Your task to perform on an android device: check the backup settings in the google photos Image 0: 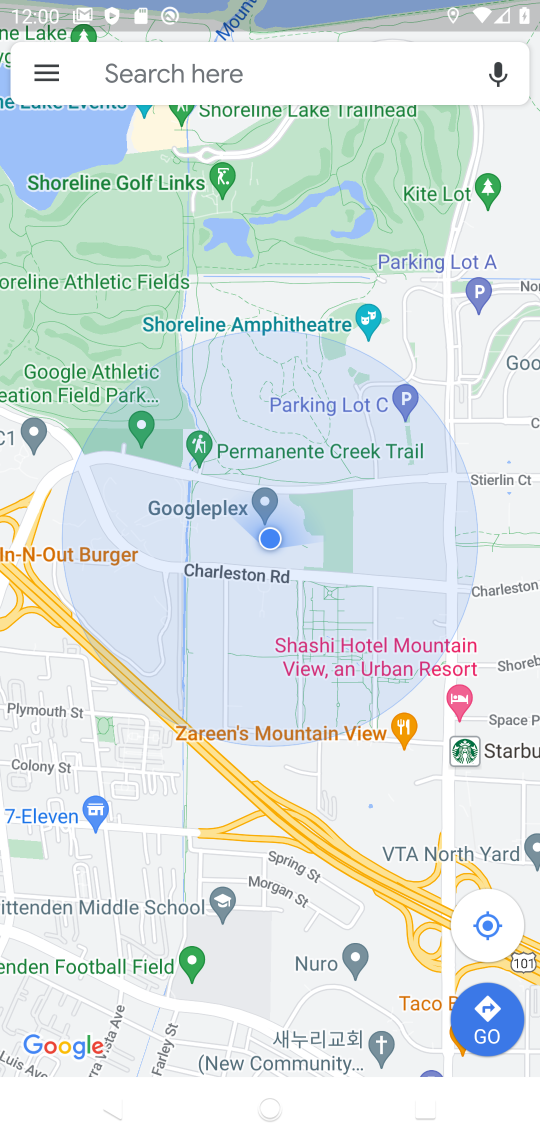
Step 0: press home button
Your task to perform on an android device: check the backup settings in the google photos Image 1: 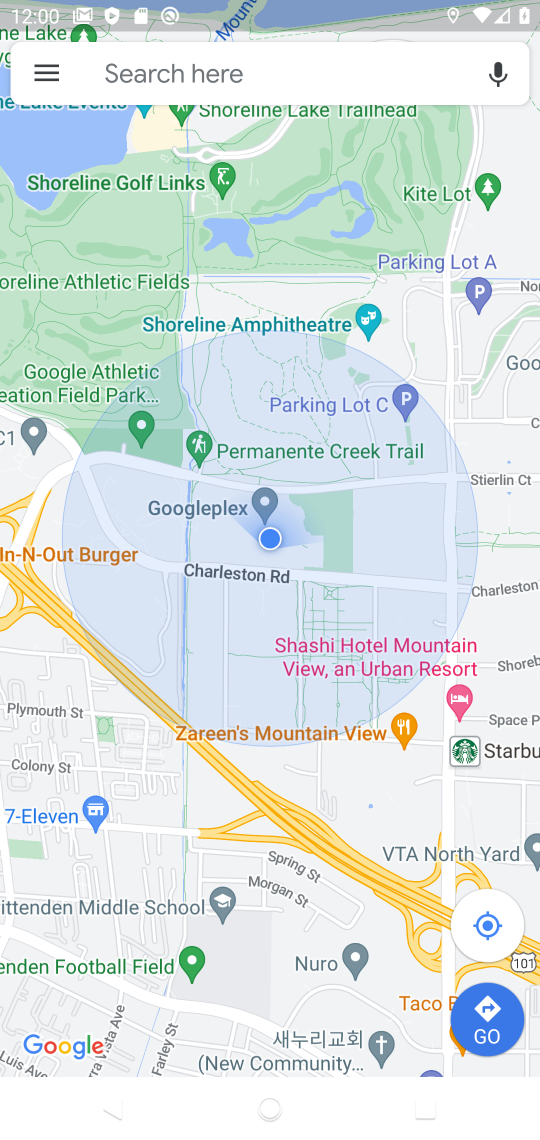
Step 1: press home button
Your task to perform on an android device: check the backup settings in the google photos Image 2: 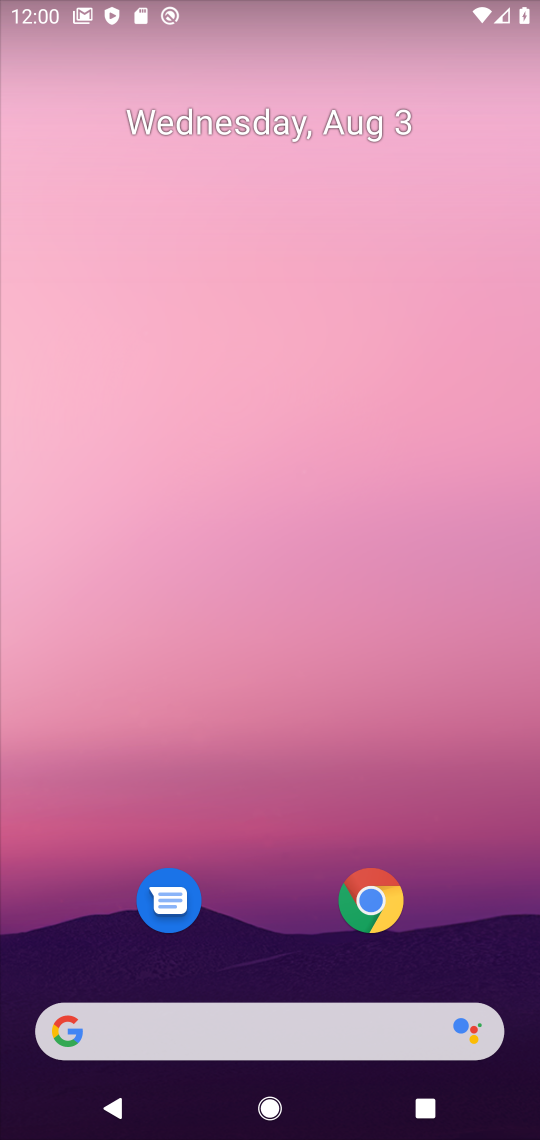
Step 2: drag from (263, 945) to (294, 135)
Your task to perform on an android device: check the backup settings in the google photos Image 3: 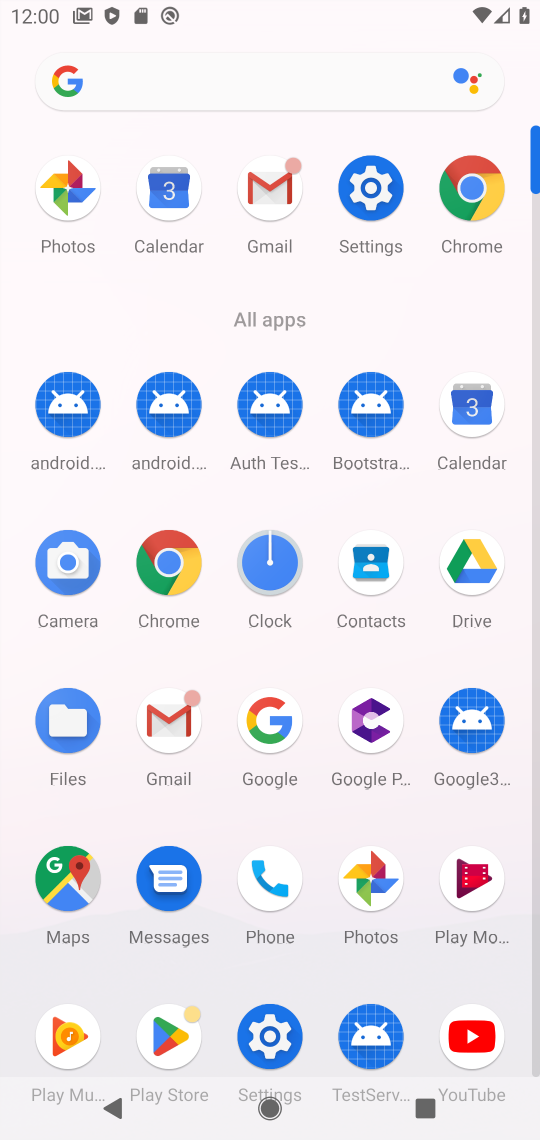
Step 3: click (367, 871)
Your task to perform on an android device: check the backup settings in the google photos Image 4: 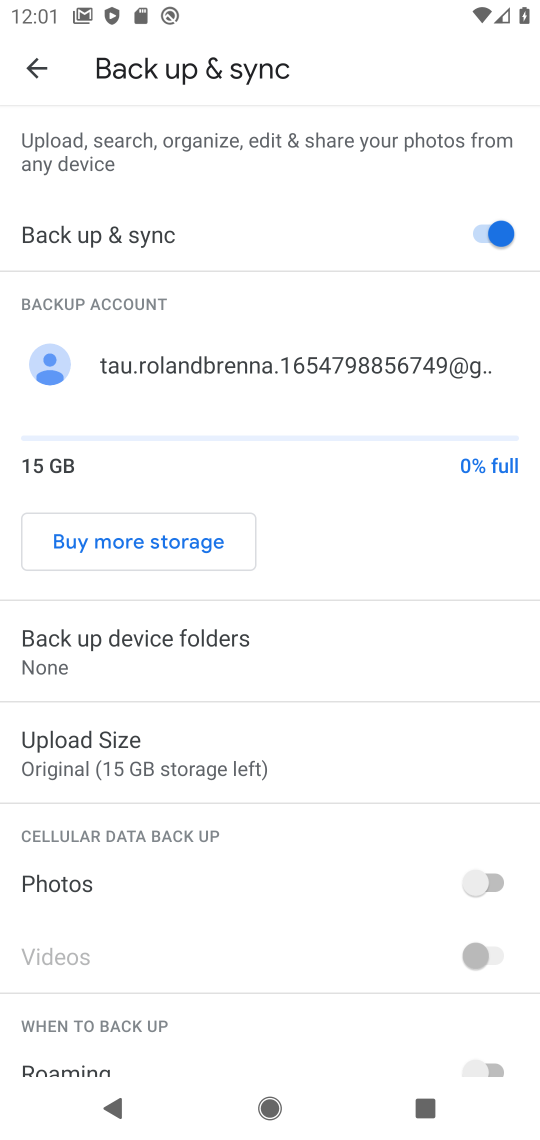
Step 4: task complete